Your task to perform on an android device: When is my next appointment? Image 0: 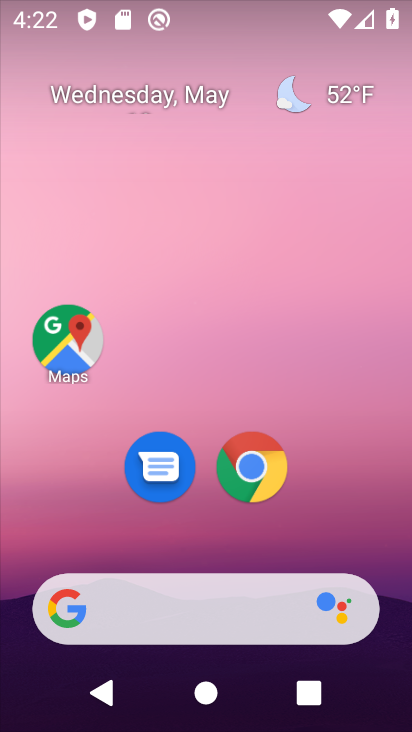
Step 0: drag from (205, 566) to (189, 188)
Your task to perform on an android device: When is my next appointment? Image 1: 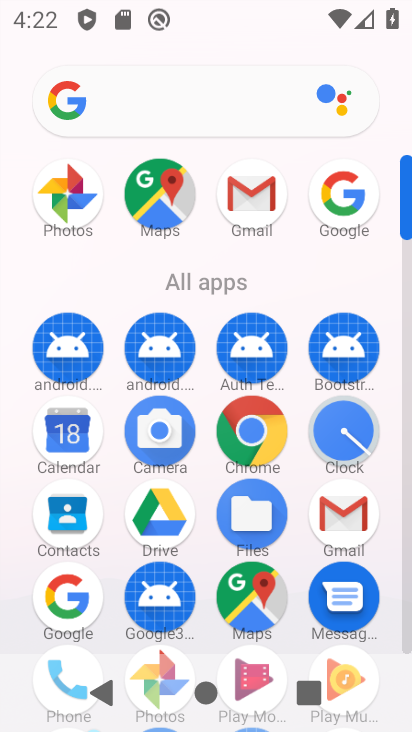
Step 1: click (66, 443)
Your task to perform on an android device: When is my next appointment? Image 2: 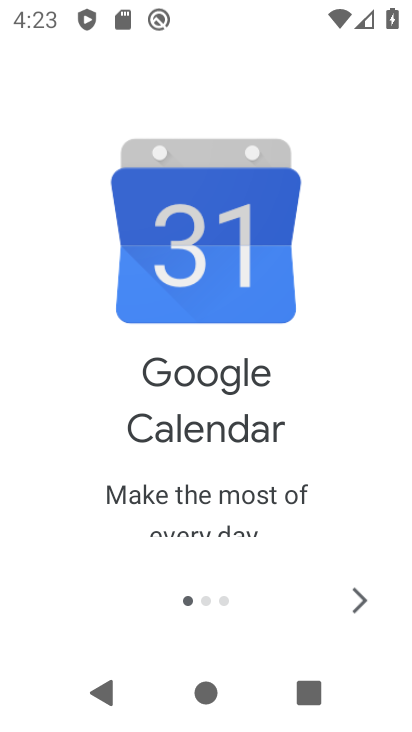
Step 2: click (359, 597)
Your task to perform on an android device: When is my next appointment? Image 3: 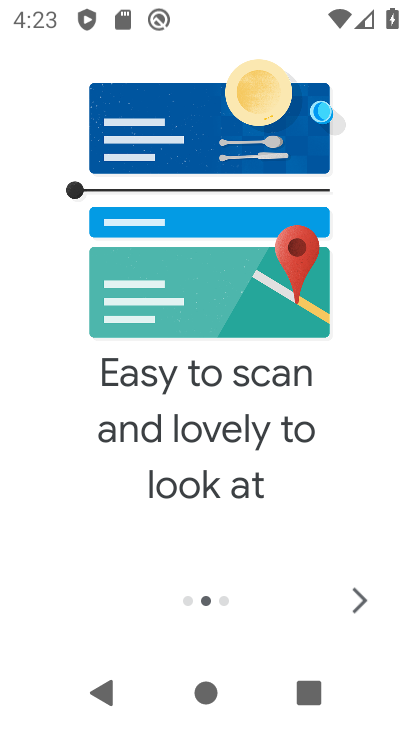
Step 3: click (359, 597)
Your task to perform on an android device: When is my next appointment? Image 4: 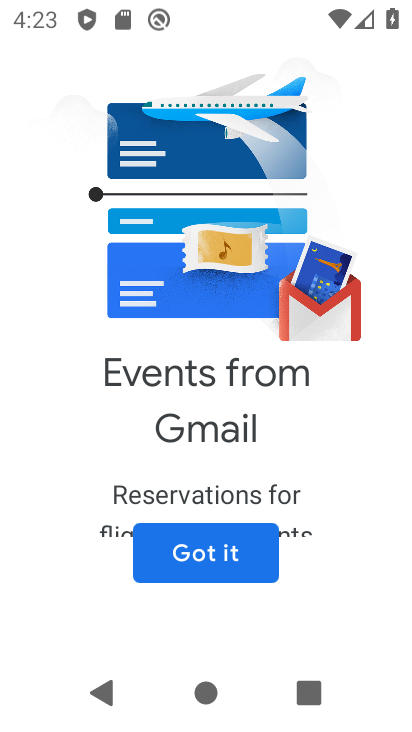
Step 4: click (238, 557)
Your task to perform on an android device: When is my next appointment? Image 5: 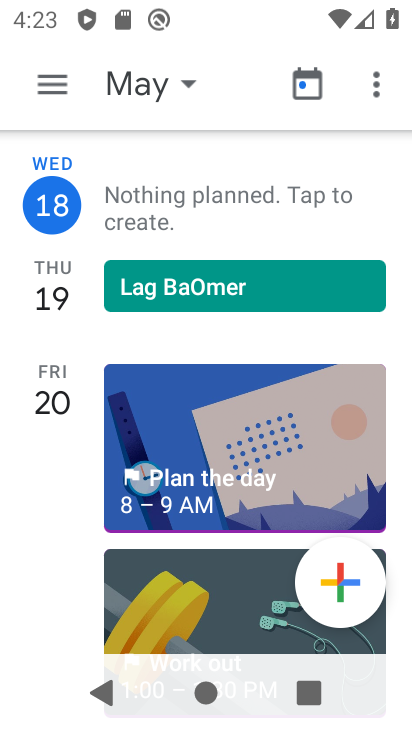
Step 5: click (163, 297)
Your task to perform on an android device: When is my next appointment? Image 6: 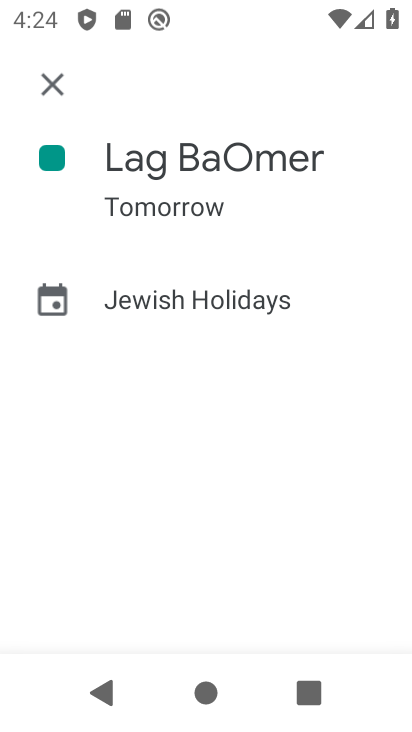
Step 6: task complete